Your task to perform on an android device: empty trash in google photos Image 0: 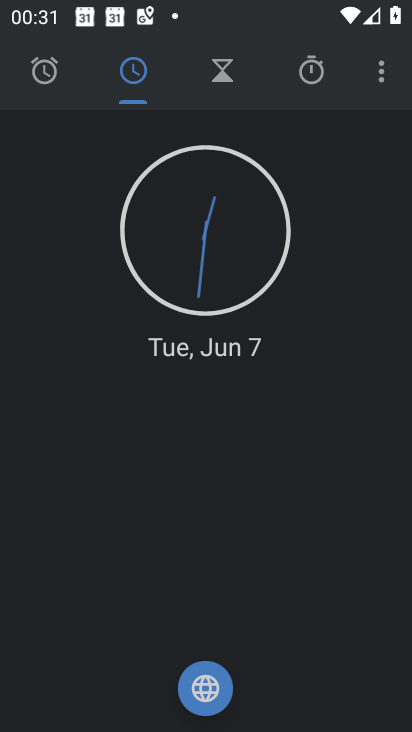
Step 0: press home button
Your task to perform on an android device: empty trash in google photos Image 1: 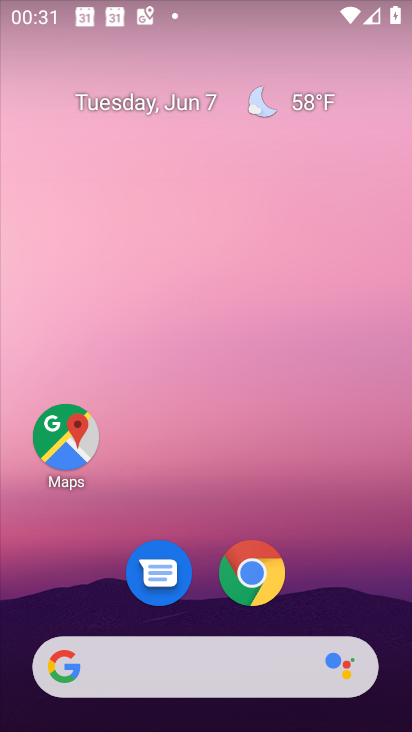
Step 1: drag from (361, 590) to (253, 99)
Your task to perform on an android device: empty trash in google photos Image 2: 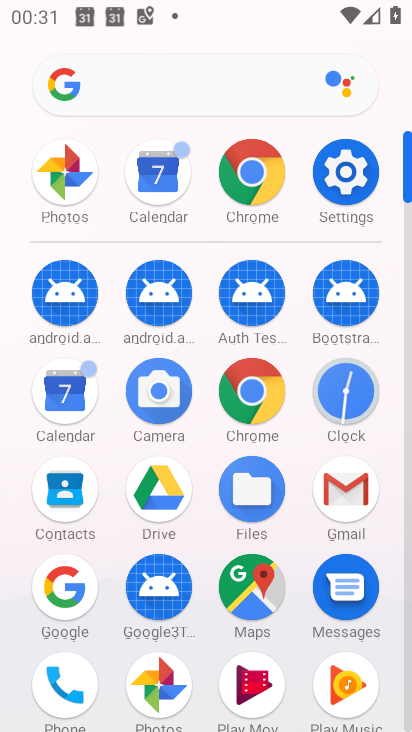
Step 2: click (148, 693)
Your task to perform on an android device: empty trash in google photos Image 3: 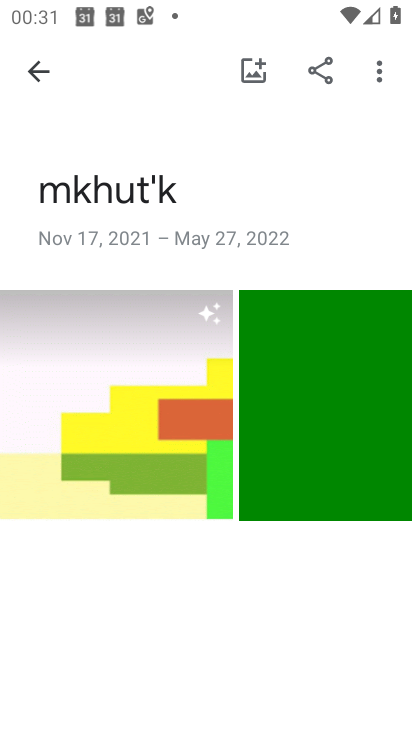
Step 3: click (52, 72)
Your task to perform on an android device: empty trash in google photos Image 4: 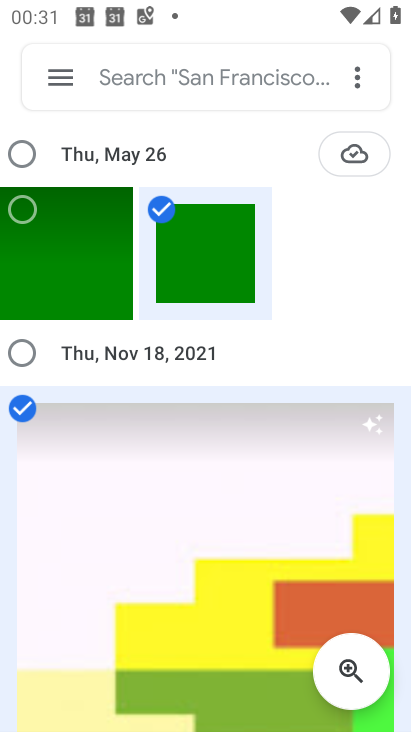
Step 4: click (52, 72)
Your task to perform on an android device: empty trash in google photos Image 5: 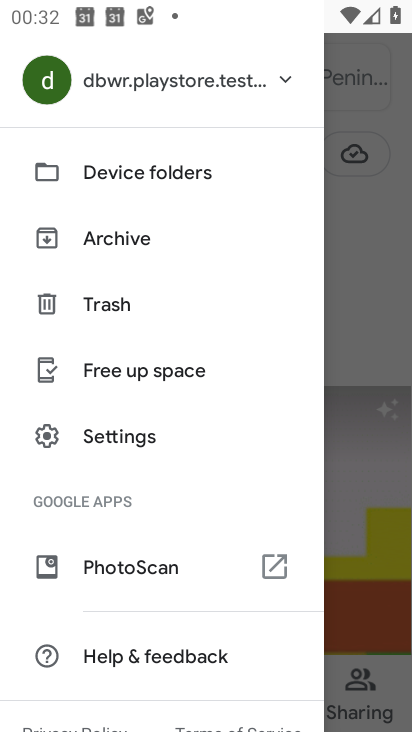
Step 5: click (99, 321)
Your task to perform on an android device: empty trash in google photos Image 6: 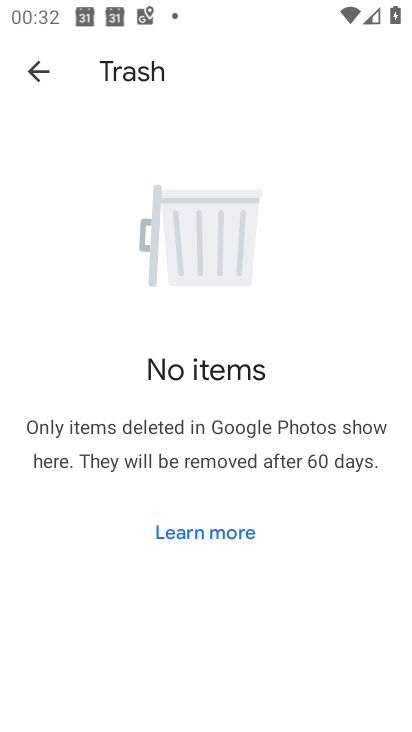
Step 6: task complete